Your task to perform on an android device: Open calendar and show me the first week of next month Image 0: 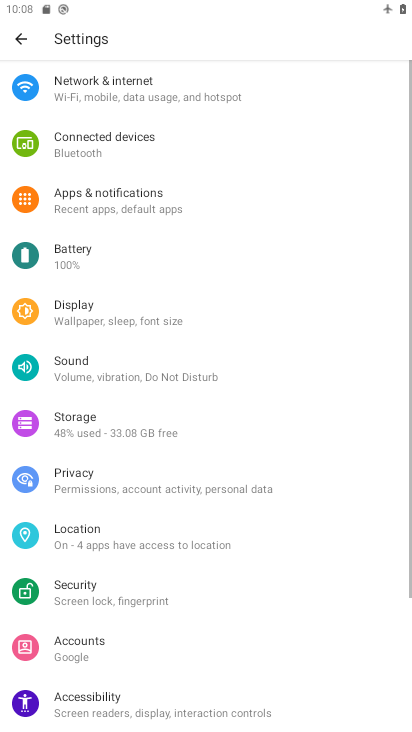
Step 0: press home button
Your task to perform on an android device: Open calendar and show me the first week of next month Image 1: 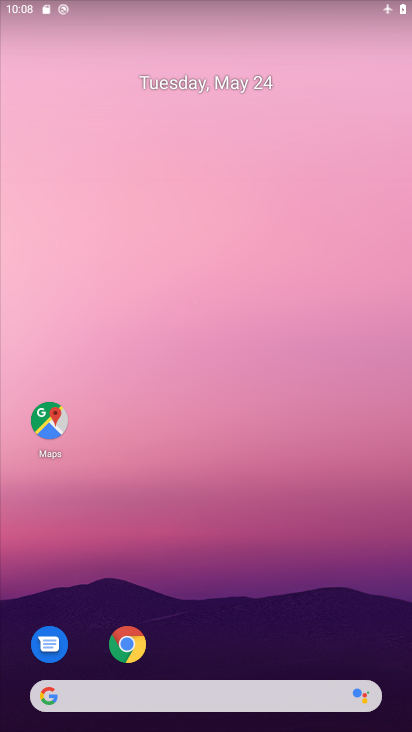
Step 1: drag from (235, 511) to (401, 150)
Your task to perform on an android device: Open calendar and show me the first week of next month Image 2: 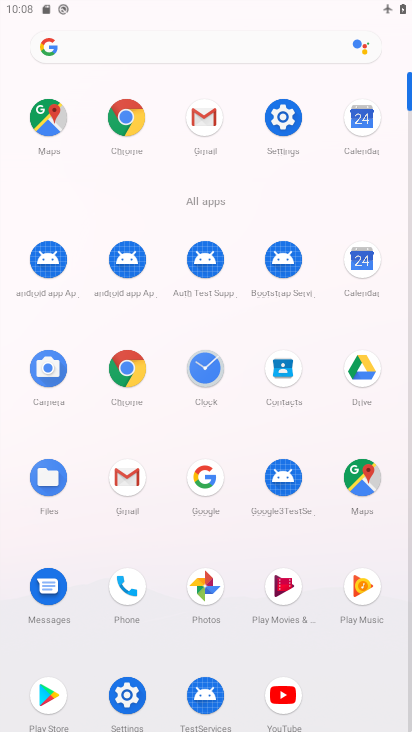
Step 2: click (358, 118)
Your task to perform on an android device: Open calendar and show me the first week of next month Image 3: 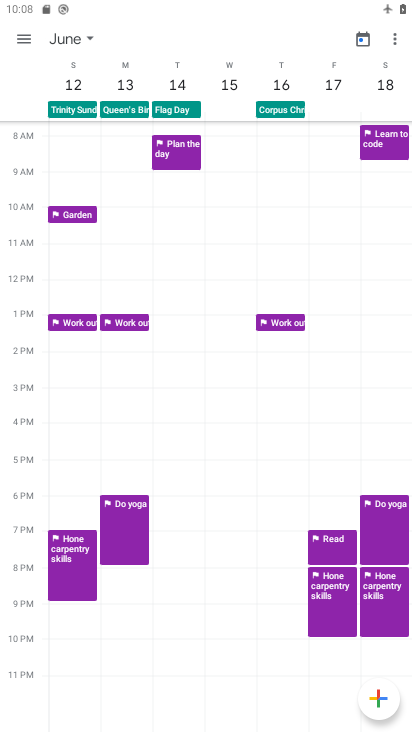
Step 3: click (87, 35)
Your task to perform on an android device: Open calendar and show me the first week of next month Image 4: 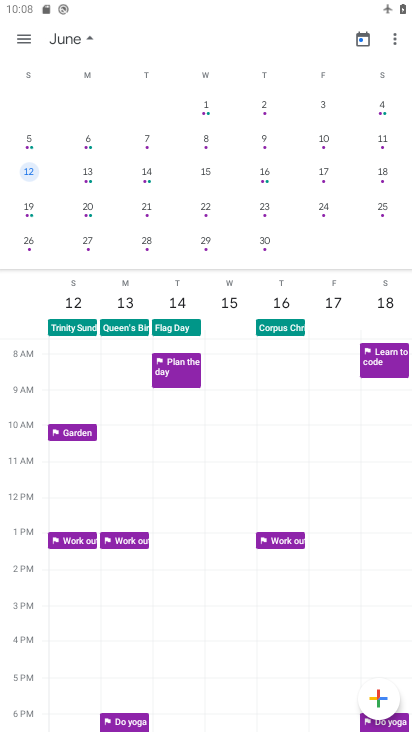
Step 4: click (209, 102)
Your task to perform on an android device: Open calendar and show me the first week of next month Image 5: 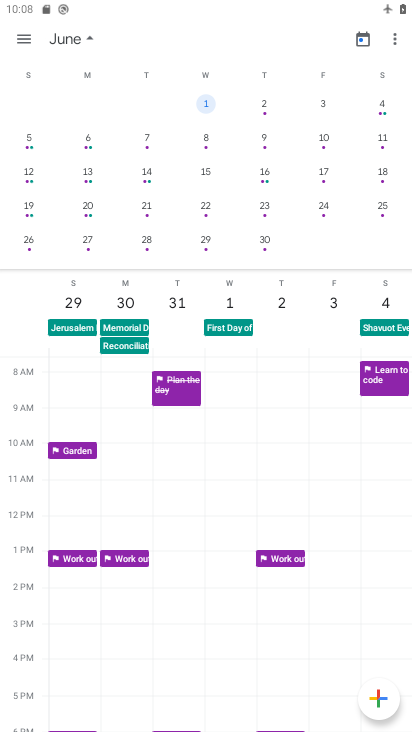
Step 5: task complete